Your task to perform on an android device: Go to Wikipedia Image 0: 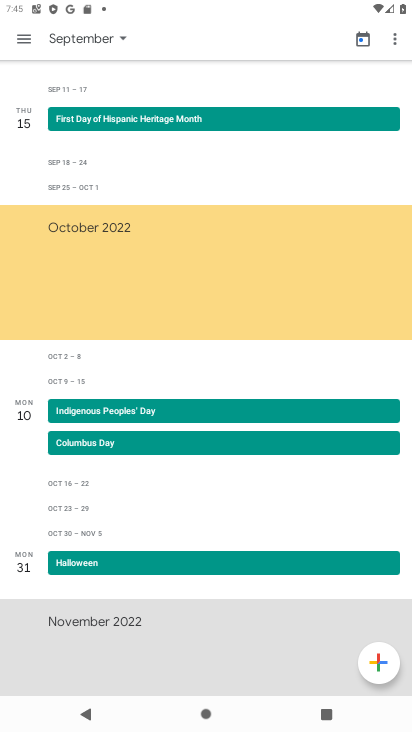
Step 0: press home button
Your task to perform on an android device: Go to Wikipedia Image 1: 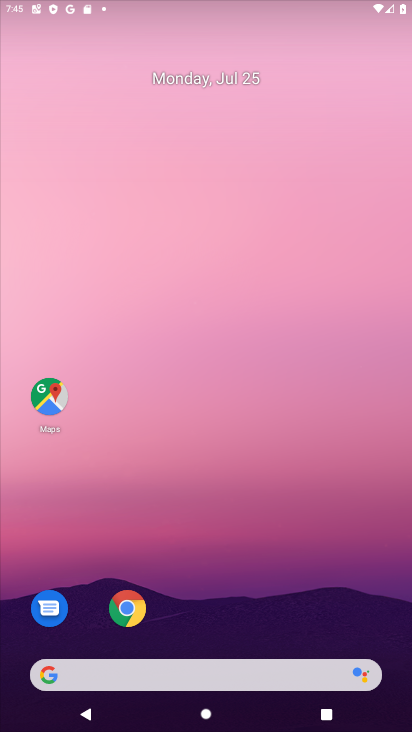
Step 1: drag from (210, 578) to (210, 34)
Your task to perform on an android device: Go to Wikipedia Image 2: 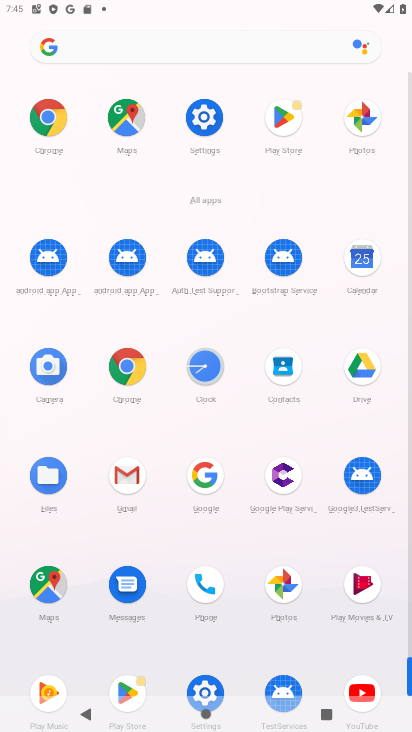
Step 2: click (134, 377)
Your task to perform on an android device: Go to Wikipedia Image 3: 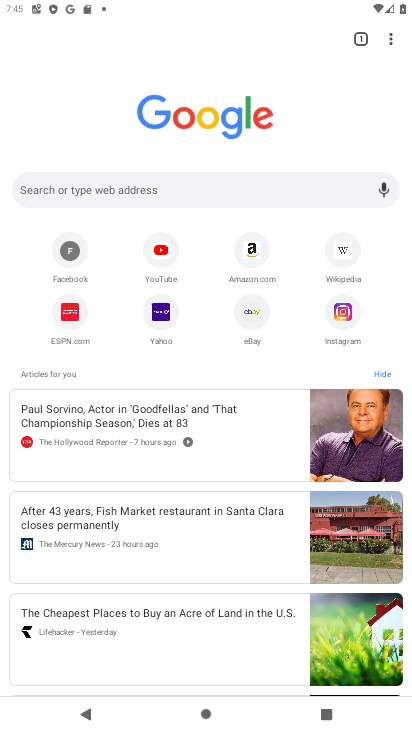
Step 3: click (334, 257)
Your task to perform on an android device: Go to Wikipedia Image 4: 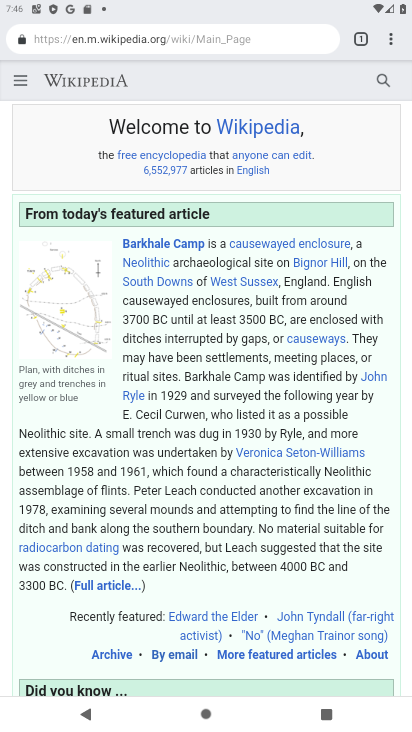
Step 4: task complete